Your task to perform on an android device: Open battery settings Image 0: 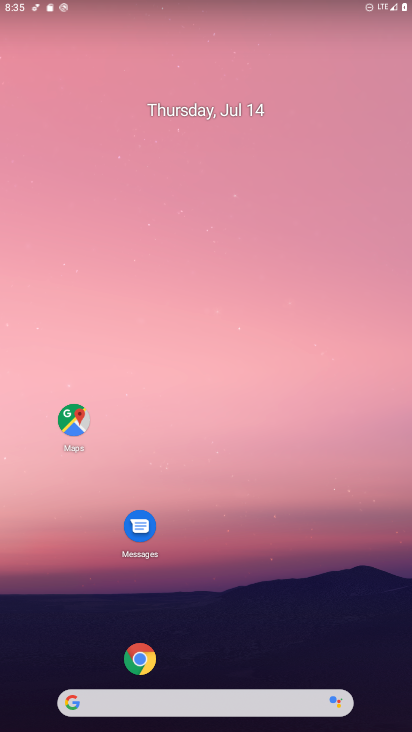
Step 0: drag from (212, 696) to (234, 288)
Your task to perform on an android device: Open battery settings Image 1: 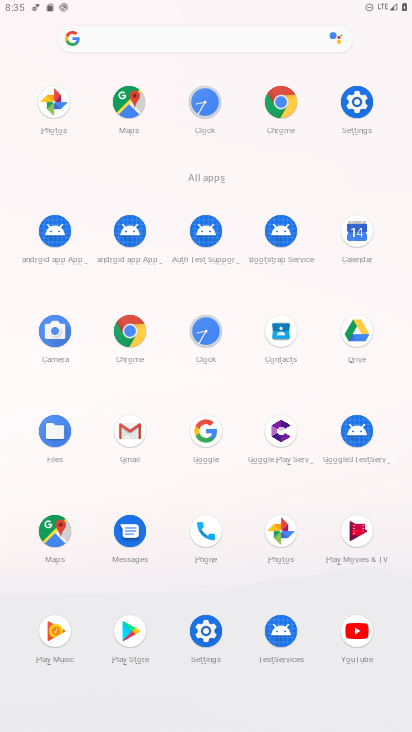
Step 1: click (349, 101)
Your task to perform on an android device: Open battery settings Image 2: 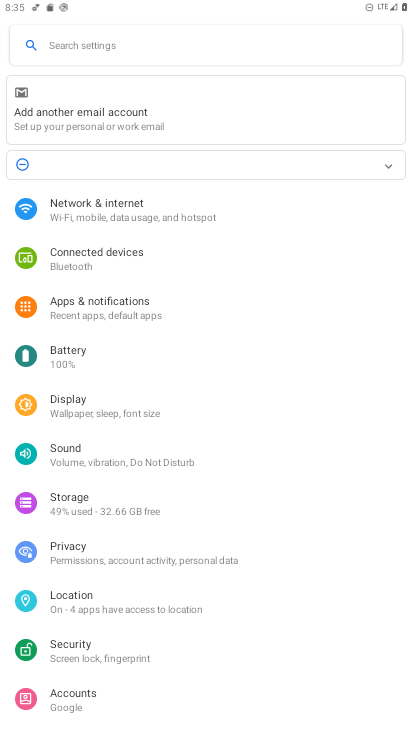
Step 2: click (86, 355)
Your task to perform on an android device: Open battery settings Image 3: 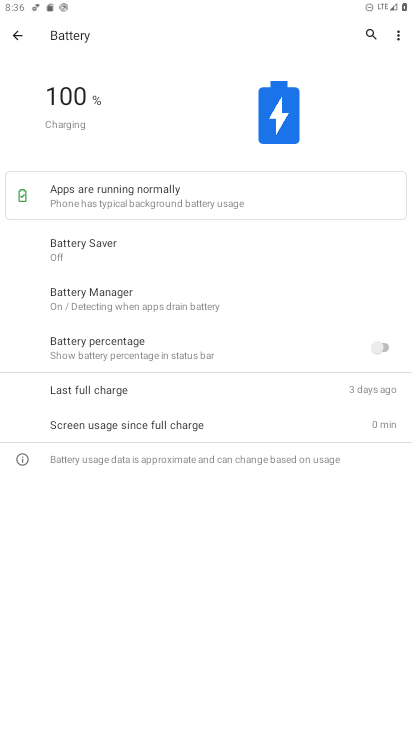
Step 3: task complete